Your task to perform on an android device: turn on data saver in the chrome app Image 0: 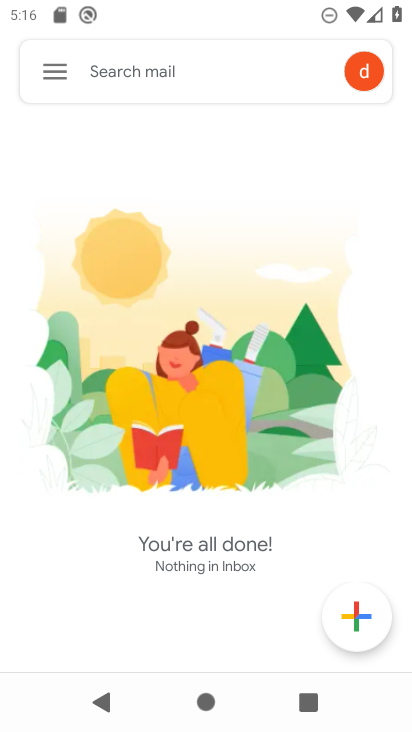
Step 0: drag from (170, 162) to (140, 532)
Your task to perform on an android device: turn on data saver in the chrome app Image 1: 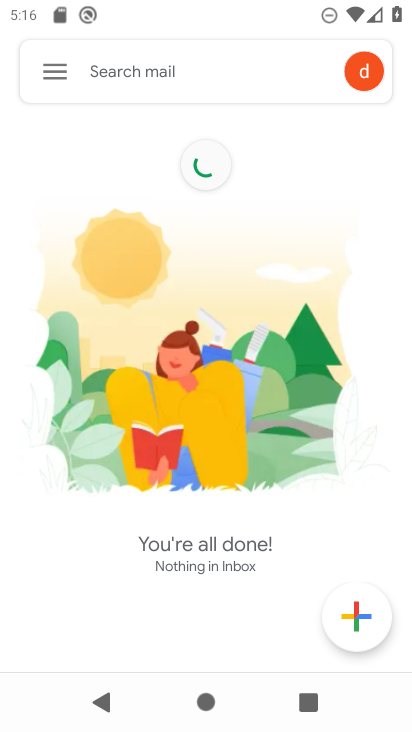
Step 1: drag from (205, 42) to (257, 396)
Your task to perform on an android device: turn on data saver in the chrome app Image 2: 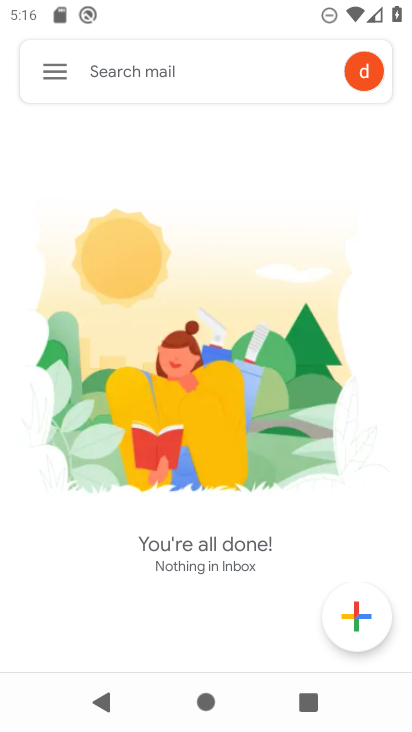
Step 2: drag from (146, 15) to (164, 338)
Your task to perform on an android device: turn on data saver in the chrome app Image 3: 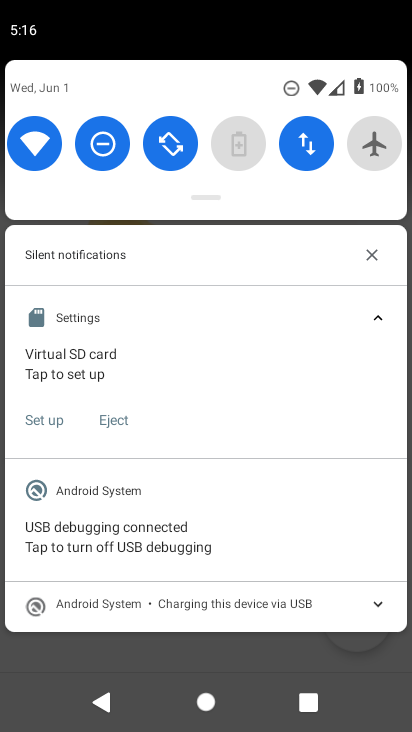
Step 3: drag from (223, 50) to (218, 530)
Your task to perform on an android device: turn on data saver in the chrome app Image 4: 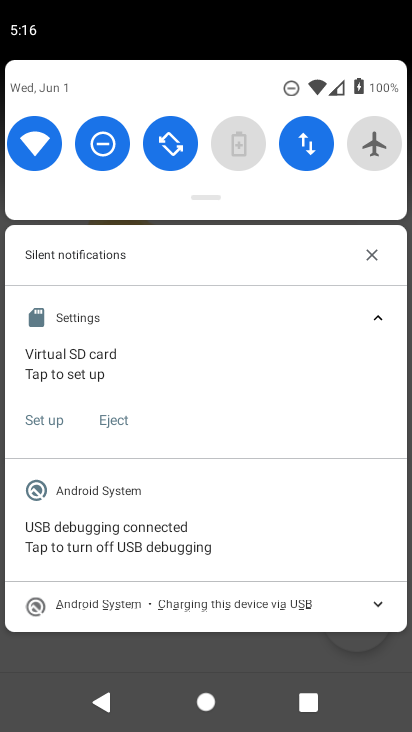
Step 4: click (304, 130)
Your task to perform on an android device: turn on data saver in the chrome app Image 5: 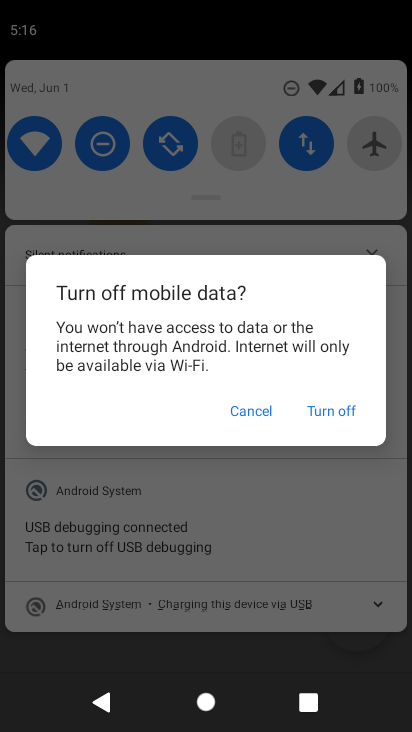
Step 5: click (256, 414)
Your task to perform on an android device: turn on data saver in the chrome app Image 6: 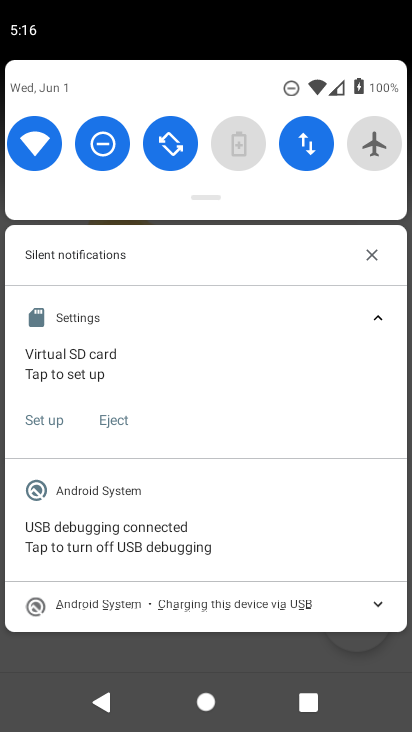
Step 6: click (310, 145)
Your task to perform on an android device: turn on data saver in the chrome app Image 7: 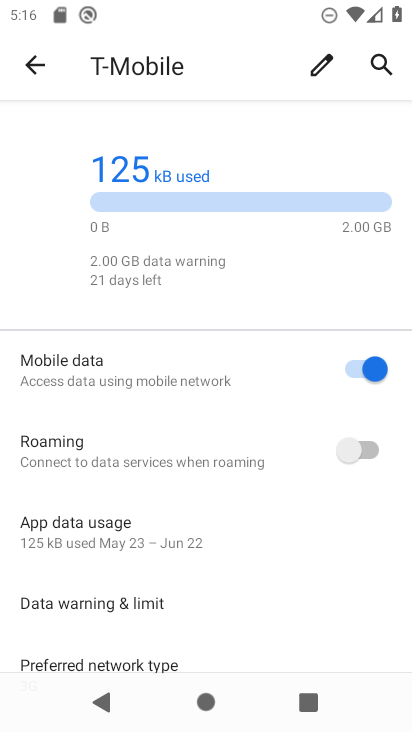
Step 7: task complete